Your task to perform on an android device: Open settings Image 0: 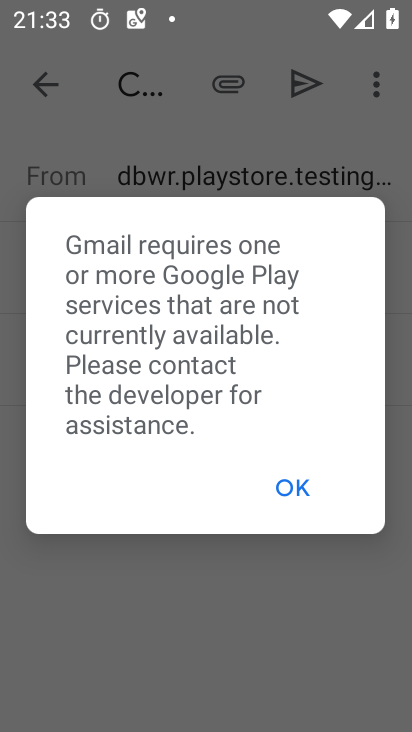
Step 0: press home button
Your task to perform on an android device: Open settings Image 1: 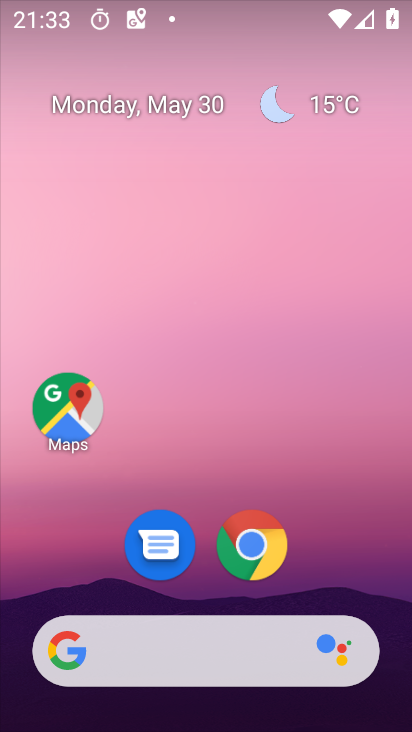
Step 1: drag from (339, 564) to (333, 198)
Your task to perform on an android device: Open settings Image 2: 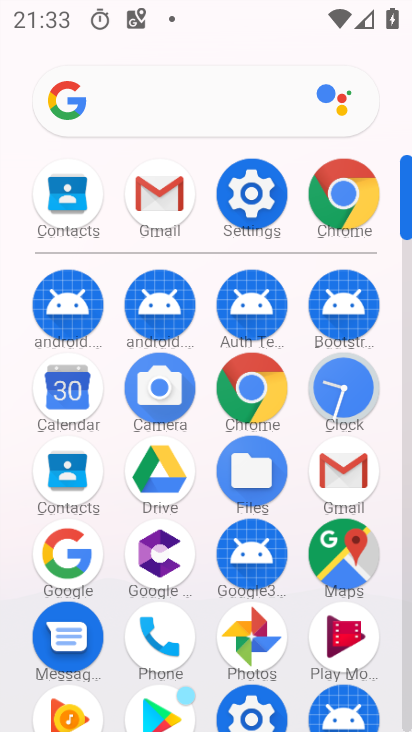
Step 2: click (255, 207)
Your task to perform on an android device: Open settings Image 3: 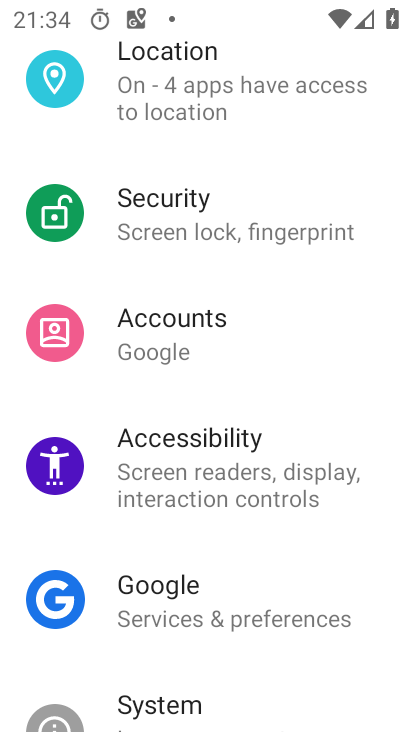
Step 3: task complete